Your task to perform on an android device: open app "Google Pay: Save, Pay, Manage" (install if not already installed) Image 0: 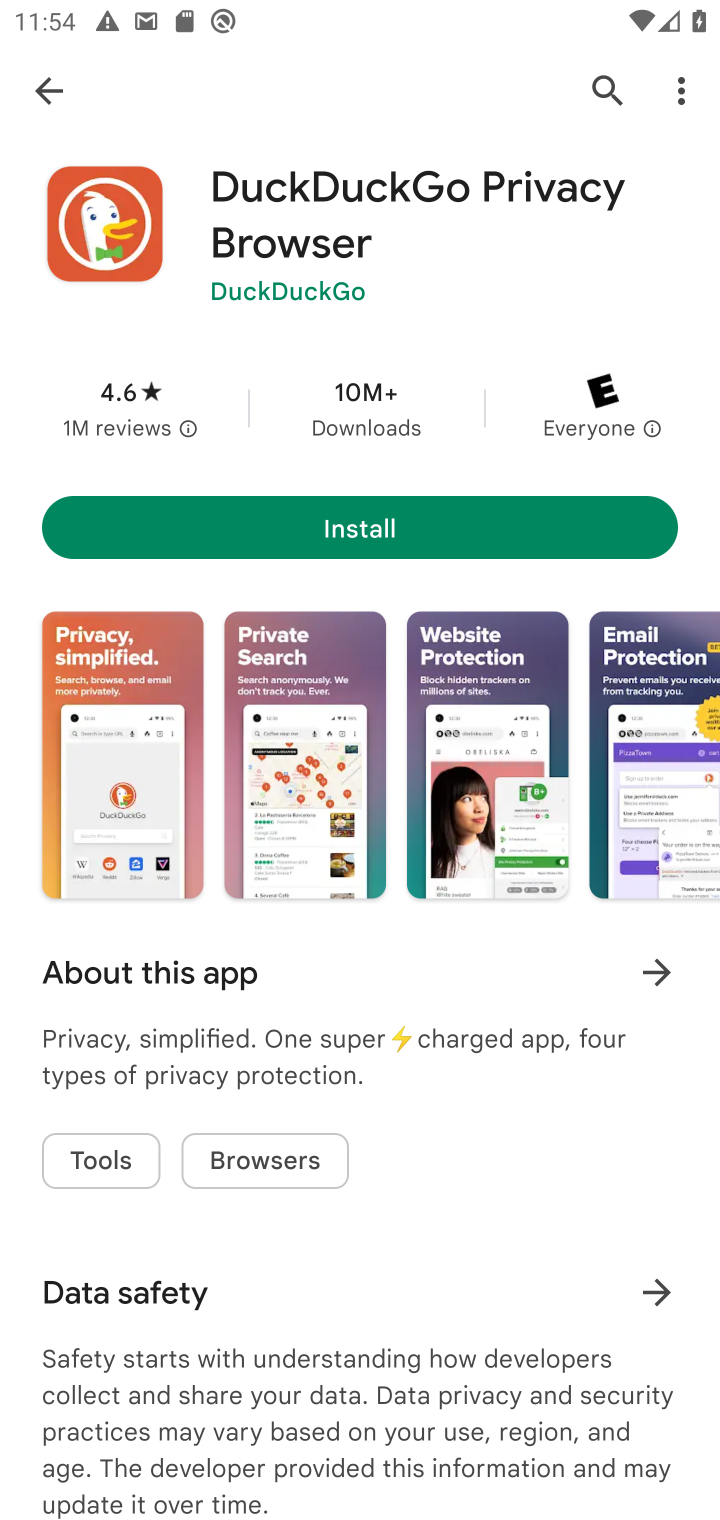
Step 0: press home button
Your task to perform on an android device: open app "Google Pay: Save, Pay, Manage" (install if not already installed) Image 1: 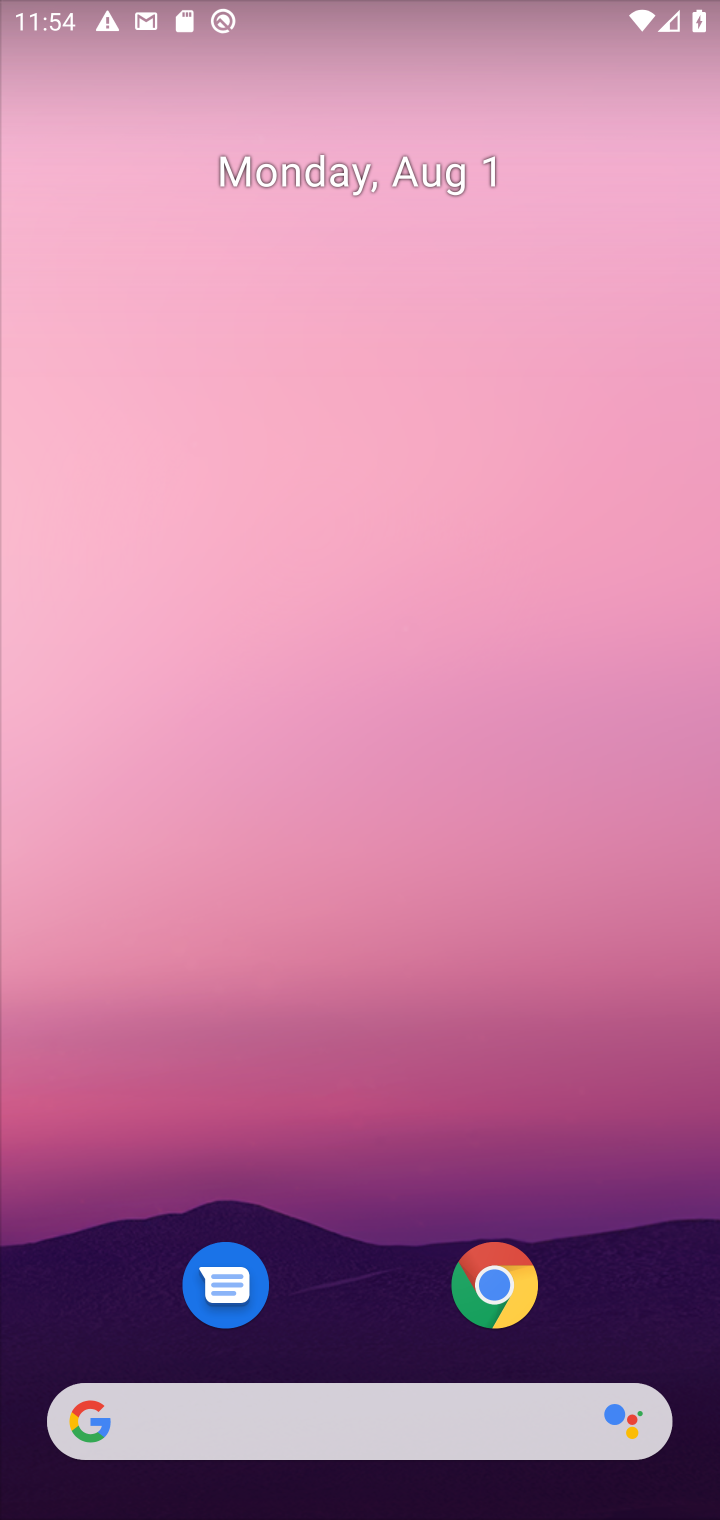
Step 1: click (394, 1205)
Your task to perform on an android device: open app "Google Pay: Save, Pay, Manage" (install if not already installed) Image 2: 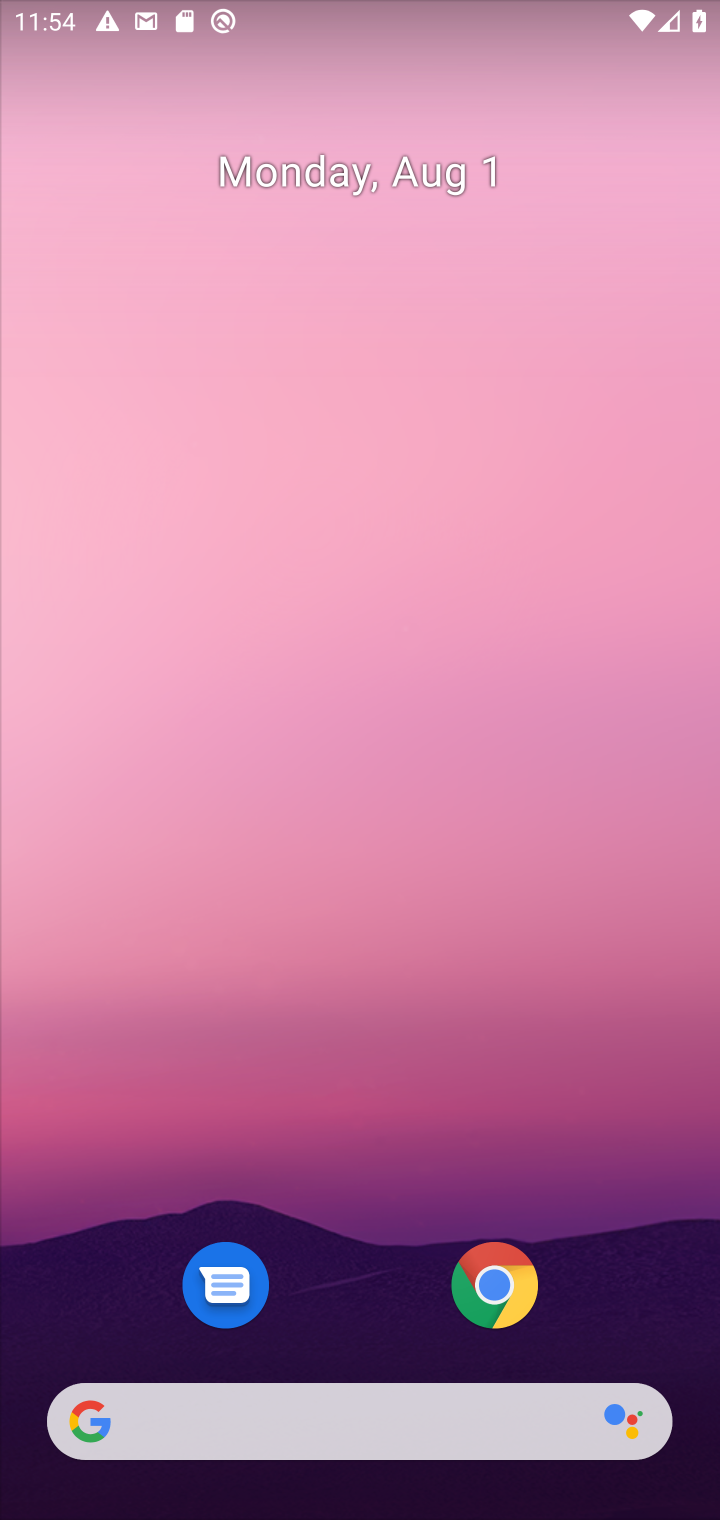
Step 2: drag from (394, 860) to (468, 171)
Your task to perform on an android device: open app "Google Pay: Save, Pay, Manage" (install if not already installed) Image 3: 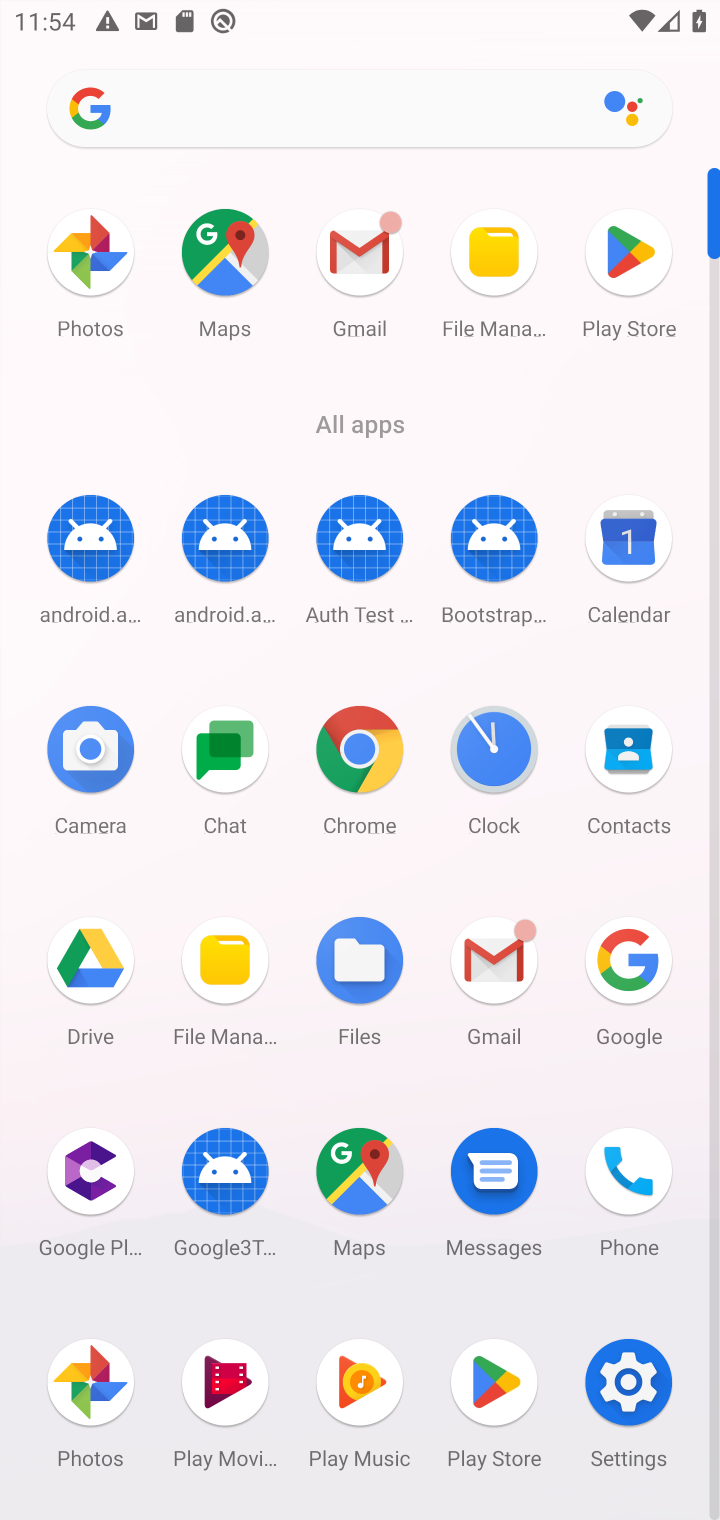
Step 3: click (632, 294)
Your task to perform on an android device: open app "Google Pay: Save, Pay, Manage" (install if not already installed) Image 4: 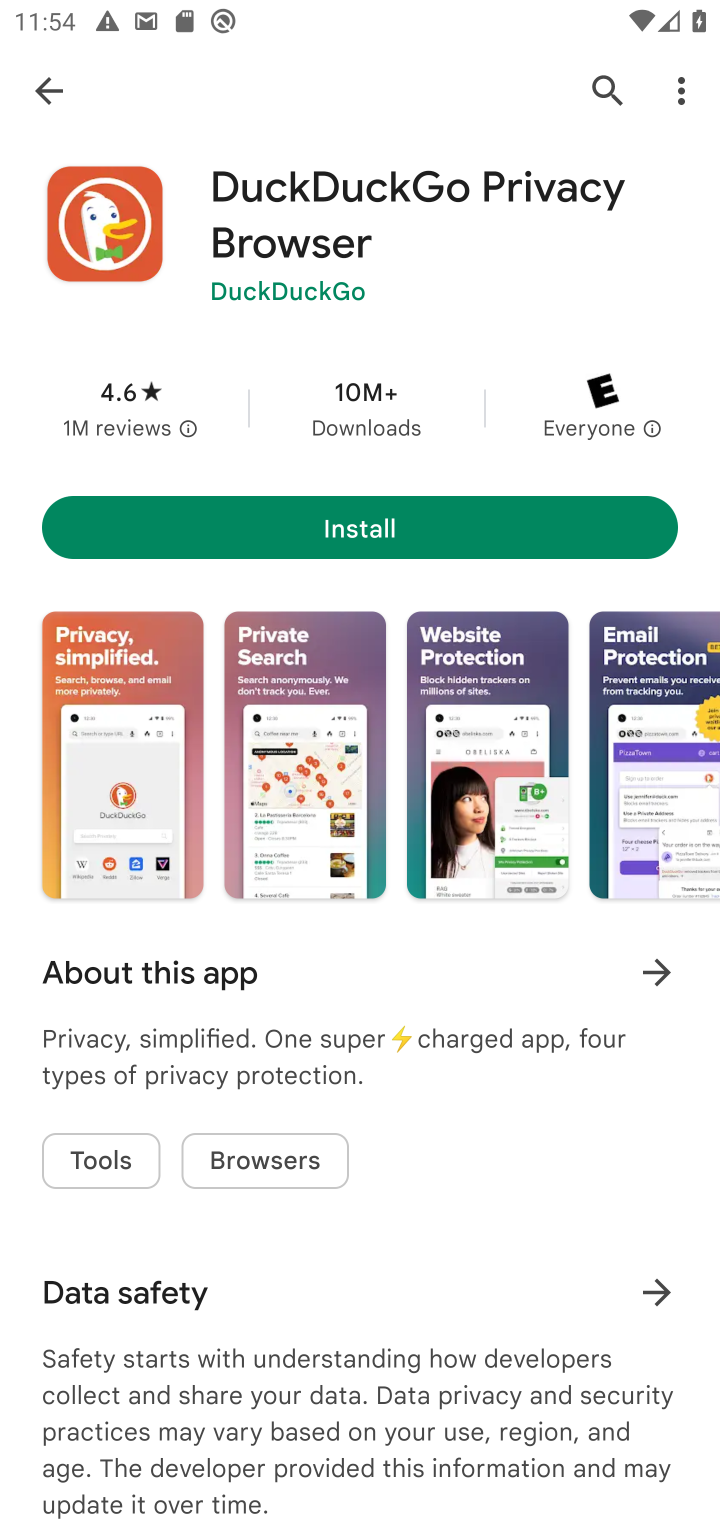
Step 4: click (623, 99)
Your task to perform on an android device: open app "Google Pay: Save, Pay, Manage" (install if not already installed) Image 5: 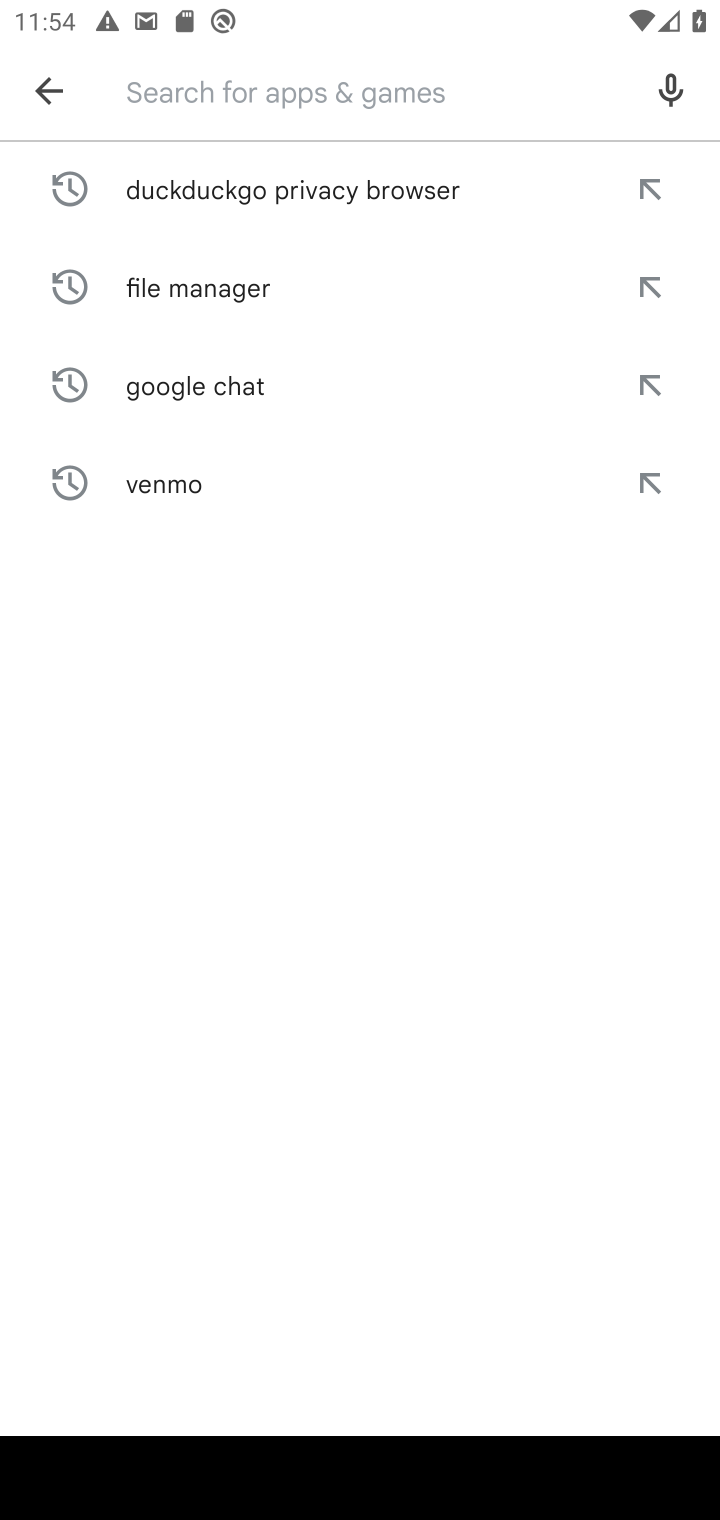
Step 5: click (312, 88)
Your task to perform on an android device: open app "Google Pay: Save, Pay, Manage" (install if not already installed) Image 6: 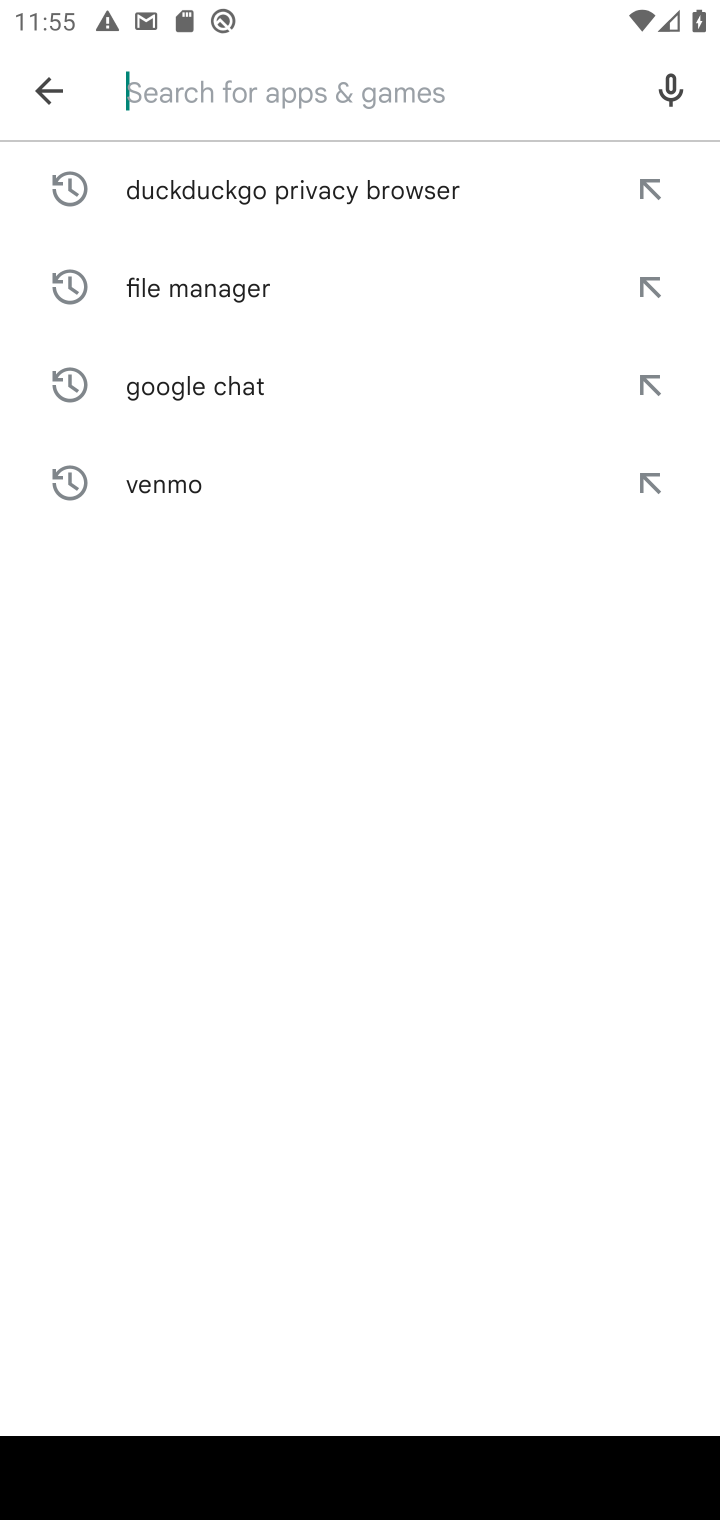
Step 6: type "Google Pay, Manage¨"
Your task to perform on an android device: open app "Google Pay: Save, Pay, Manage" (install if not already installed) Image 7: 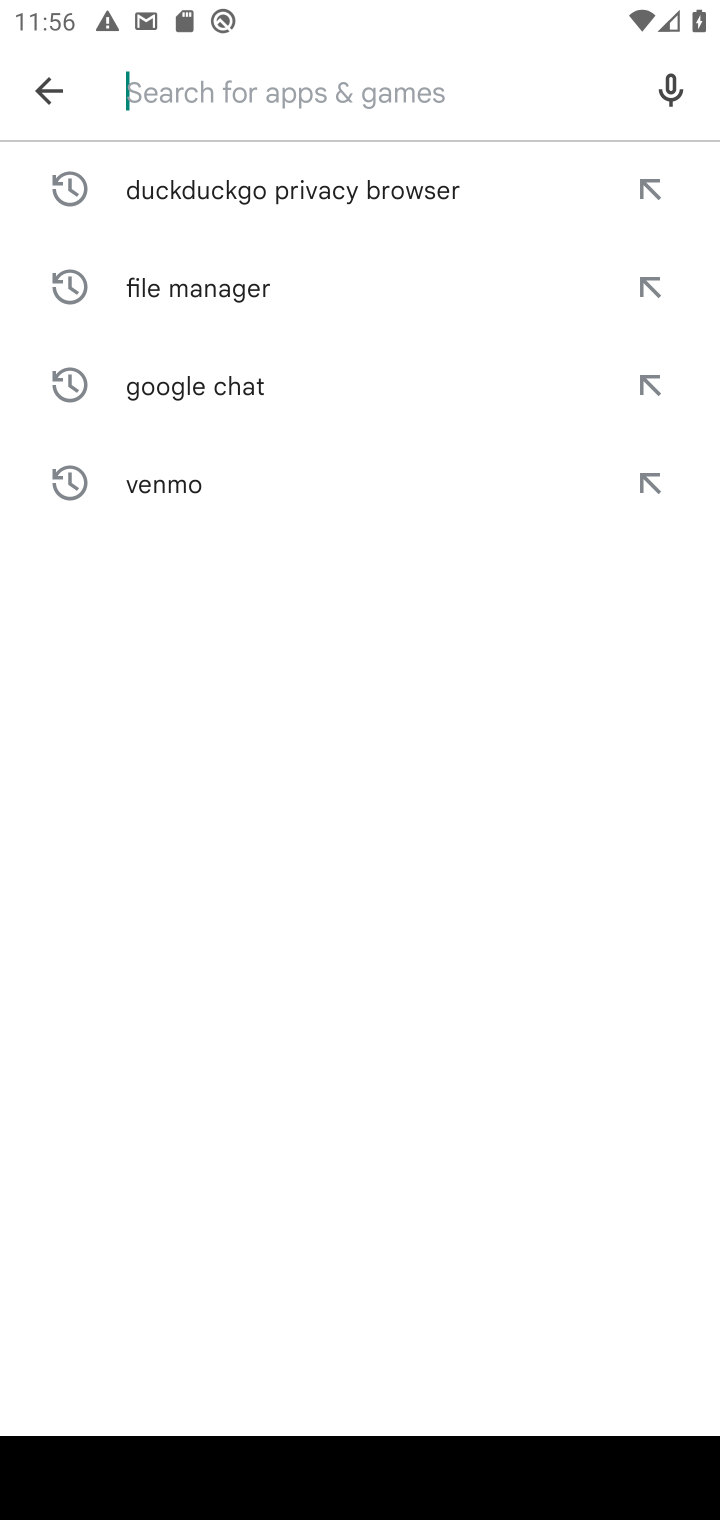
Step 7: type "Google pay, Manage"
Your task to perform on an android device: open app "Google Pay: Save, Pay, Manage" (install if not already installed) Image 8: 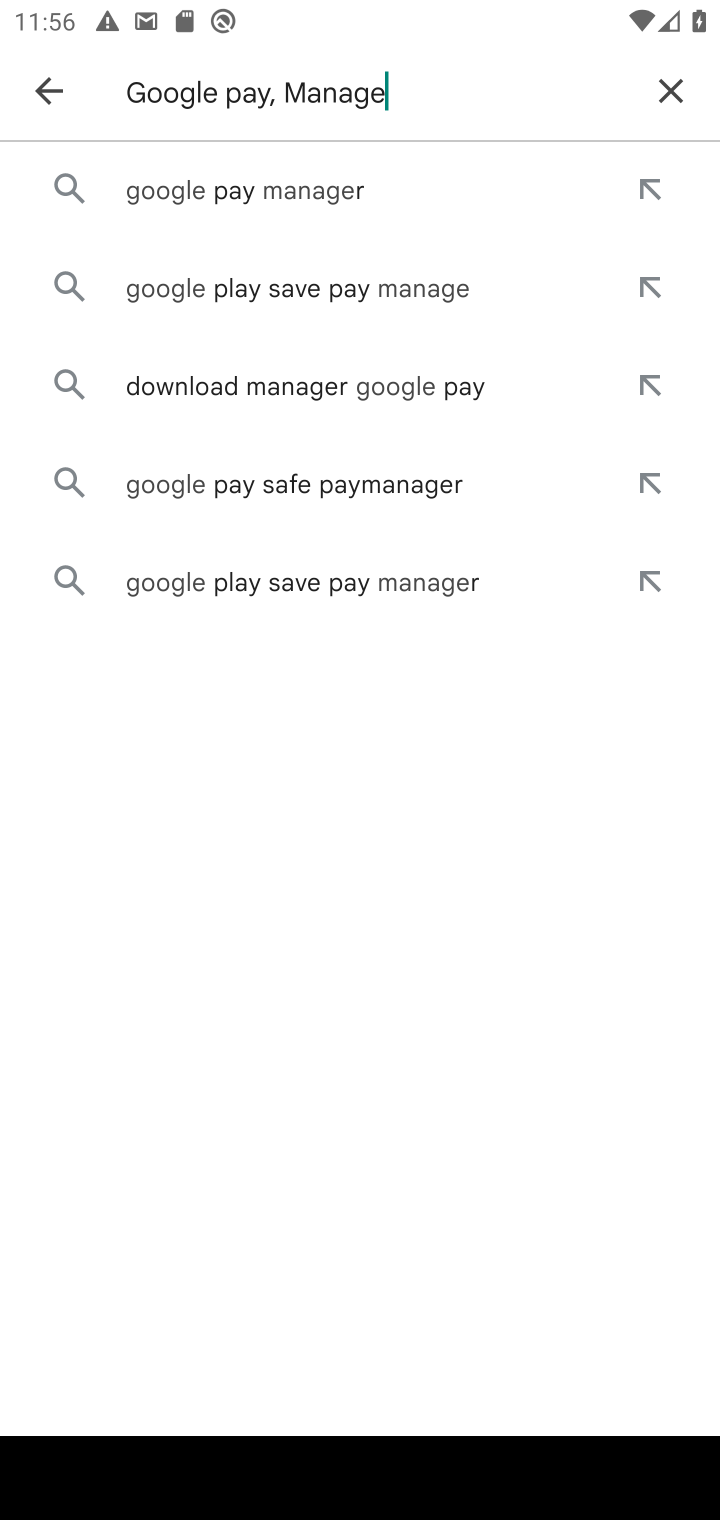
Step 8: click (398, 210)
Your task to perform on an android device: open app "Google Pay: Save, Pay, Manage" (install if not already installed) Image 9: 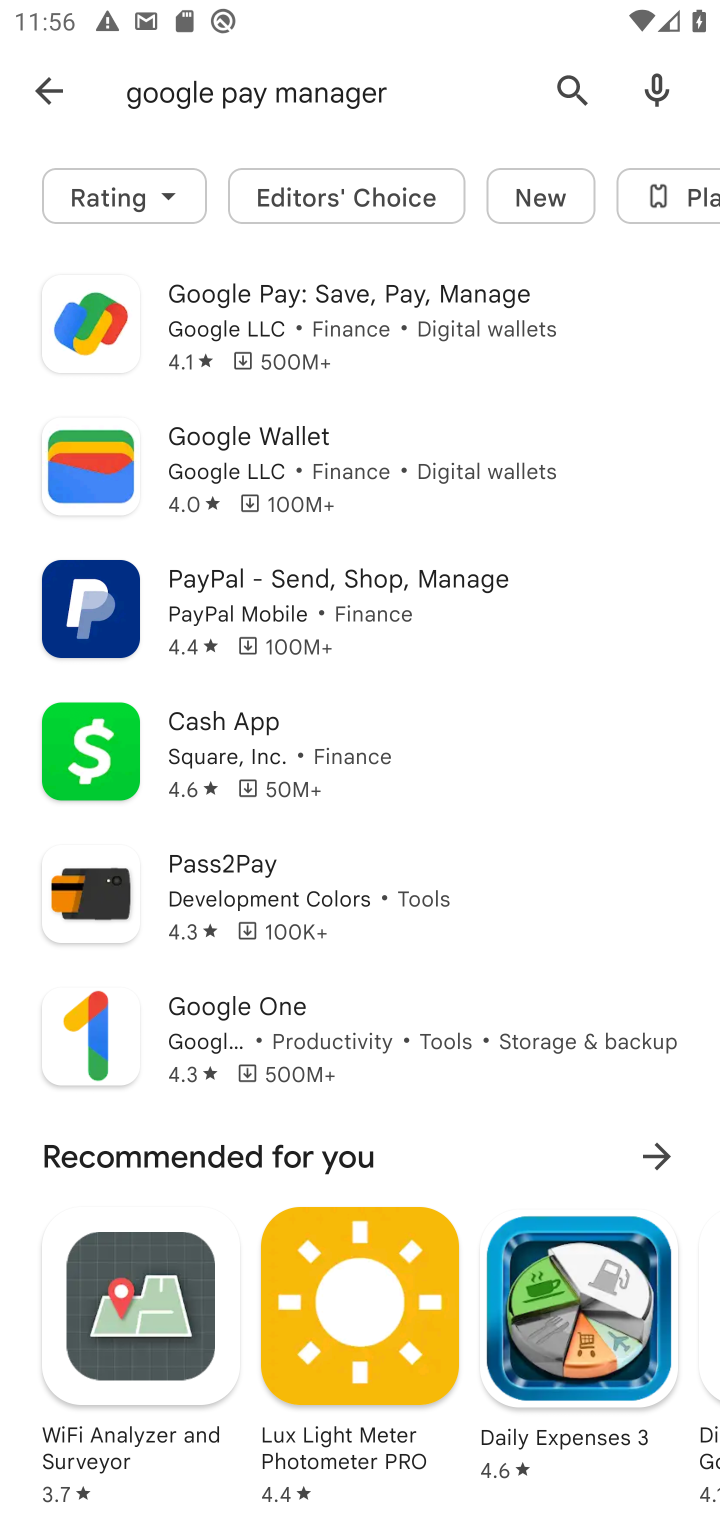
Step 9: click (175, 343)
Your task to perform on an android device: open app "Google Pay: Save, Pay, Manage" (install if not already installed) Image 10: 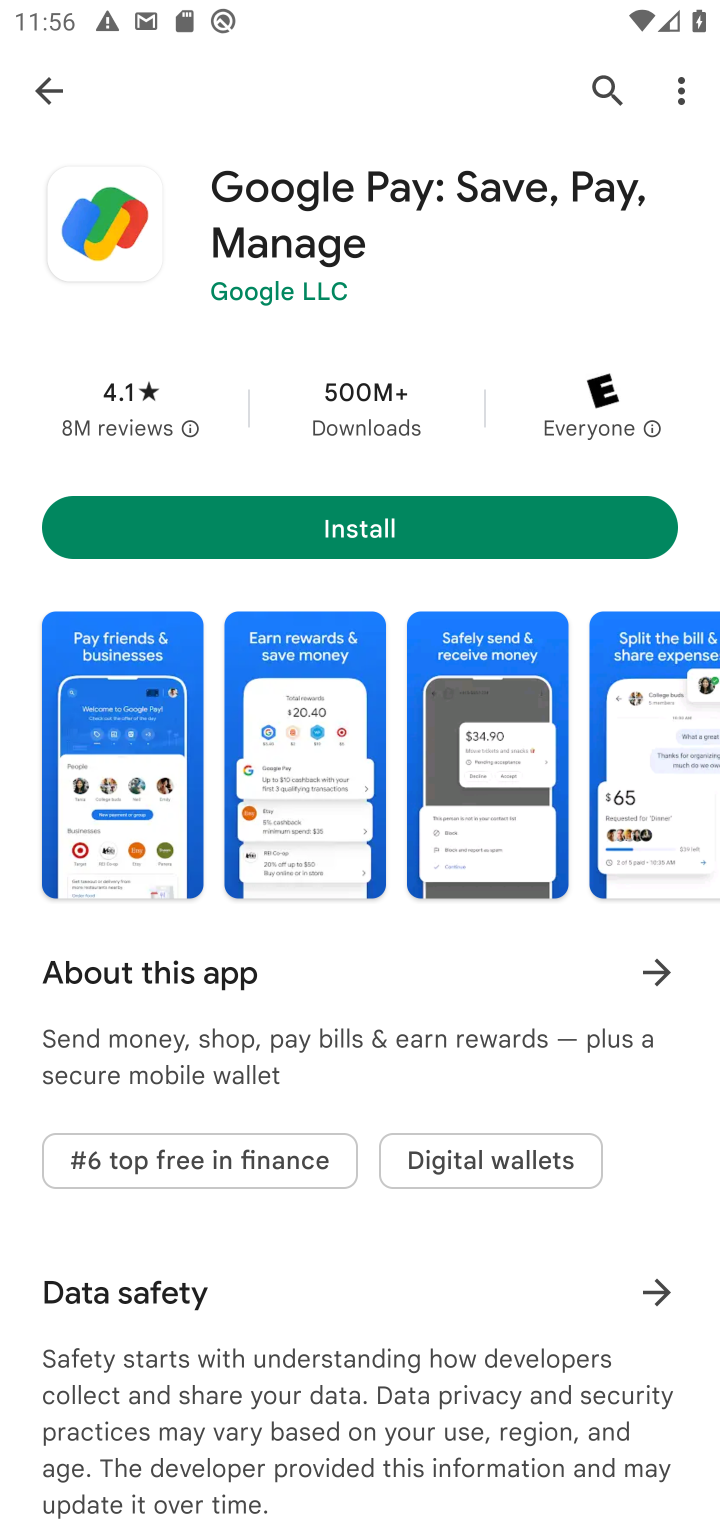
Step 10: click (315, 504)
Your task to perform on an android device: open app "Google Pay: Save, Pay, Manage" (install if not already installed) Image 11: 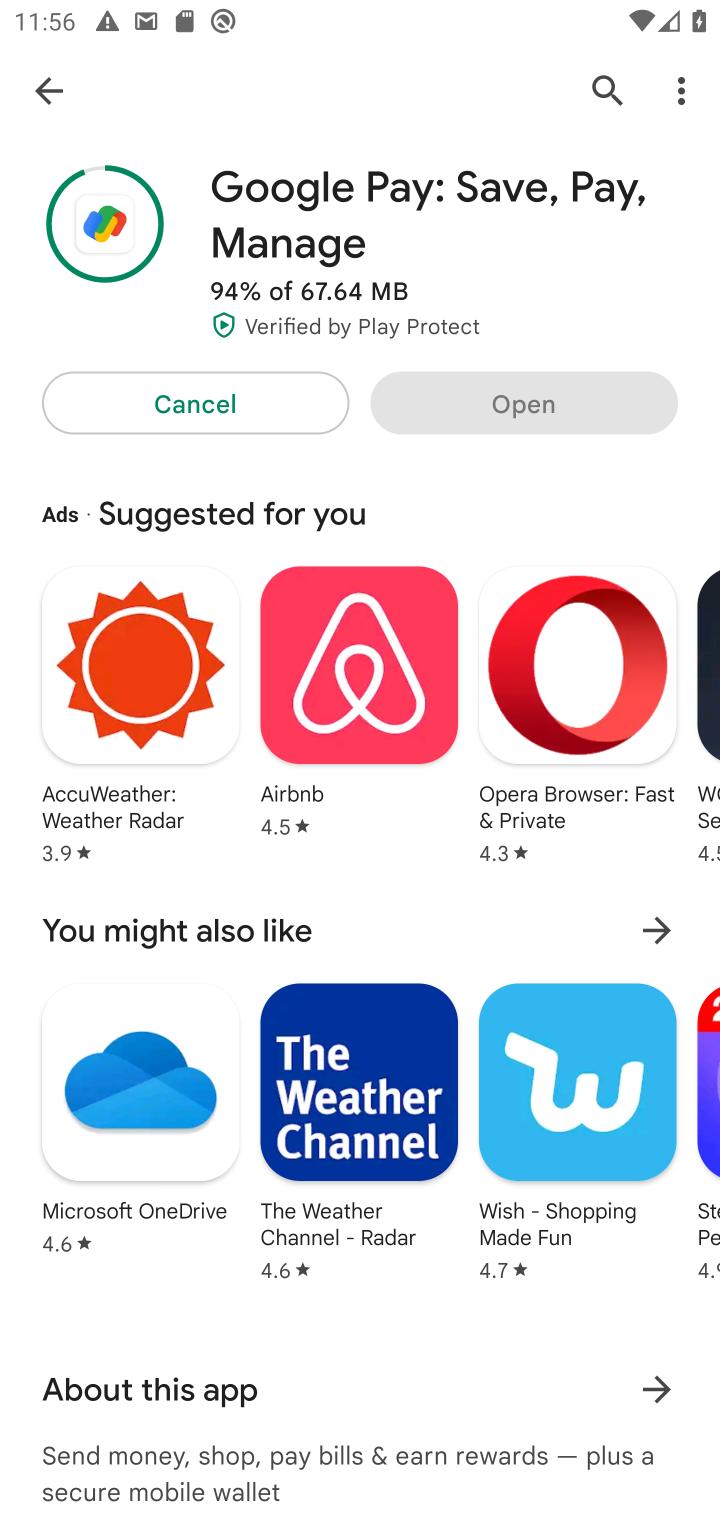
Step 11: click (69, 106)
Your task to perform on an android device: open app "Google Pay: Save, Pay, Manage" (install if not already installed) Image 12: 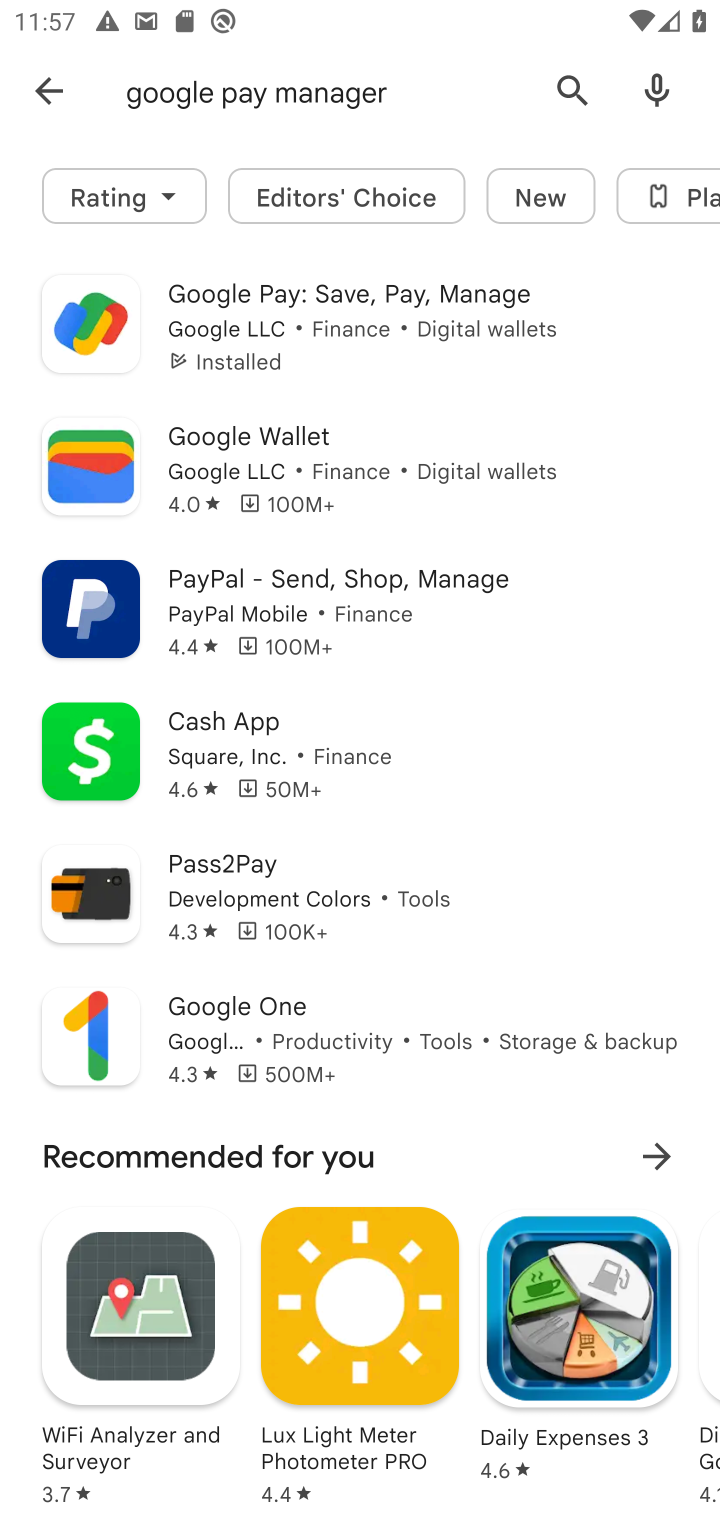
Step 12: click (242, 303)
Your task to perform on an android device: open app "Google Pay: Save, Pay, Manage" (install if not already installed) Image 13: 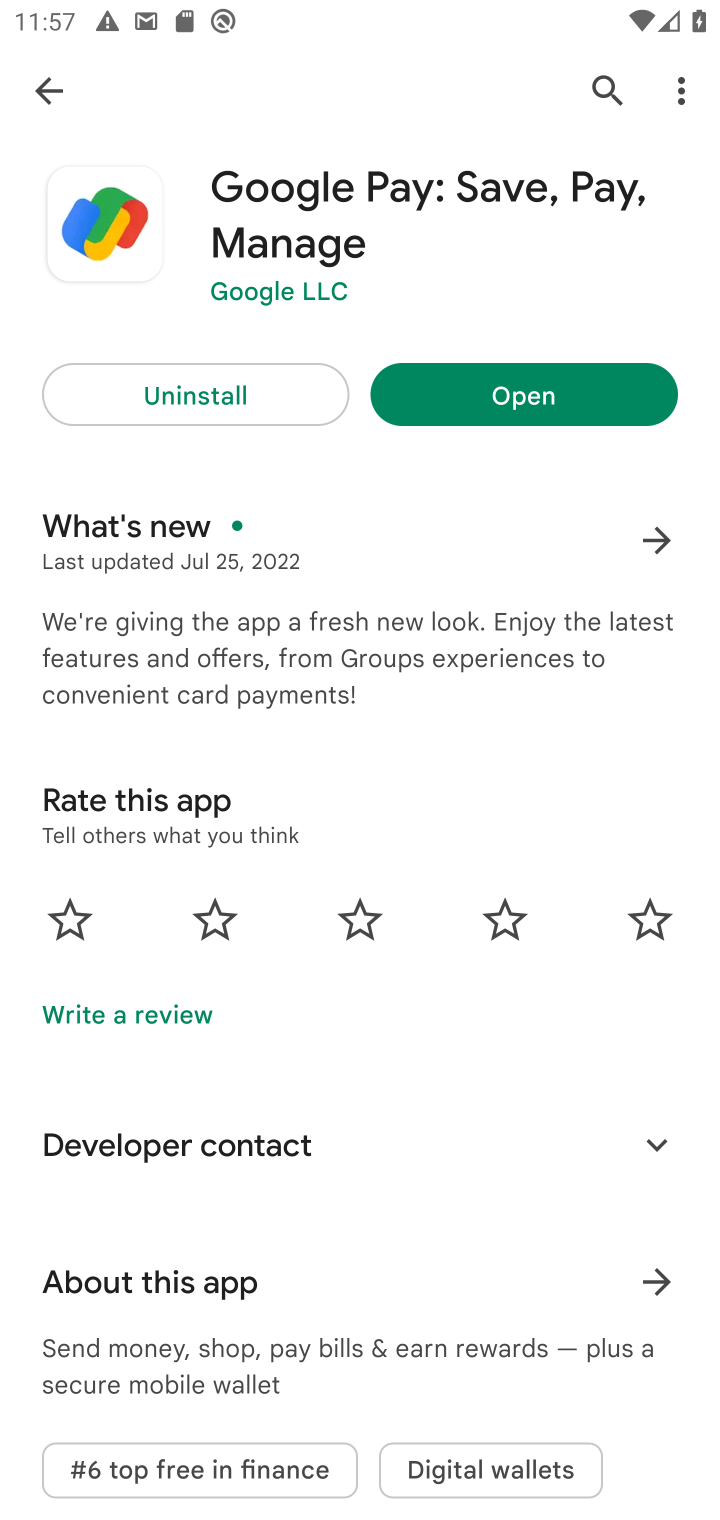
Step 13: click (574, 387)
Your task to perform on an android device: open app "Google Pay: Save, Pay, Manage" (install if not already installed) Image 14: 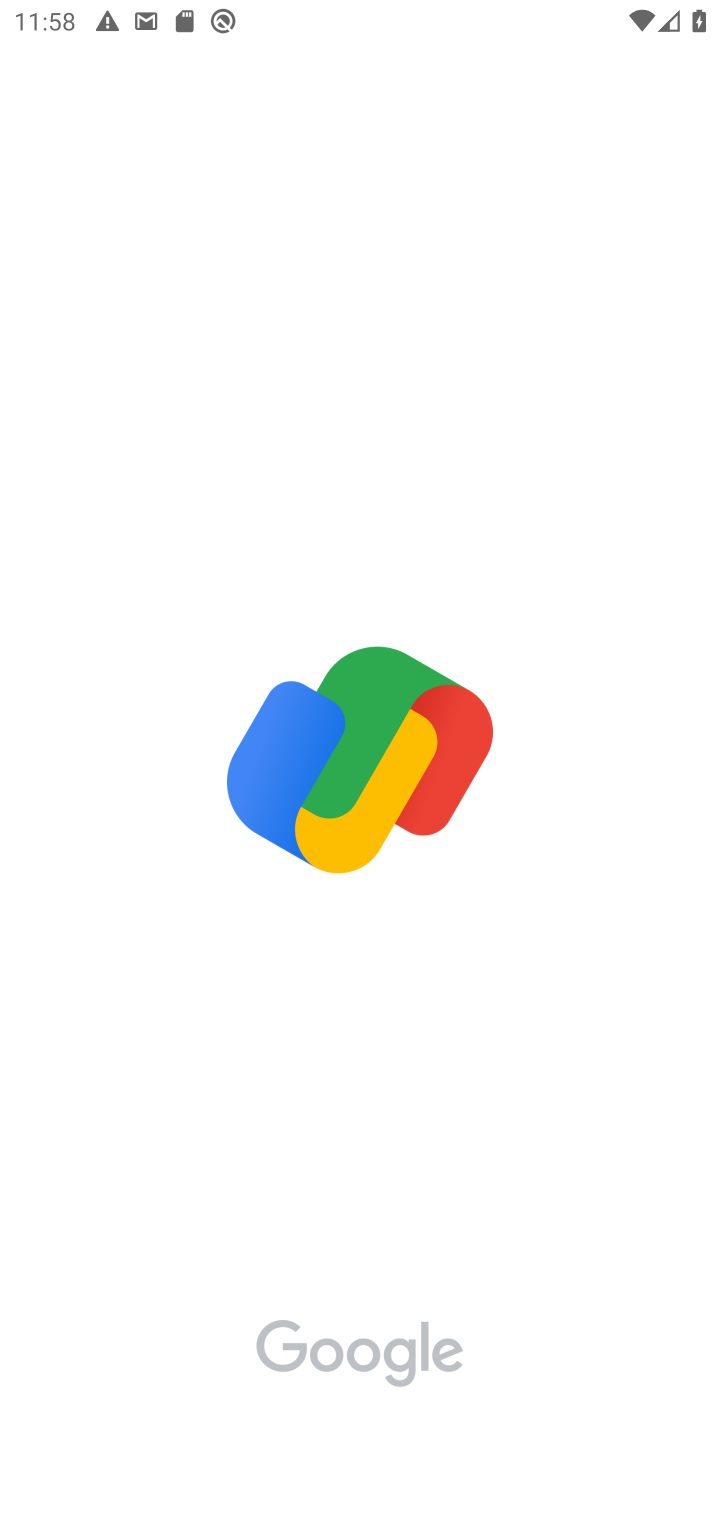
Step 14: drag from (69, 757) to (678, 1018)
Your task to perform on an android device: open app "Google Pay: Save, Pay, Manage" (install if not already installed) Image 15: 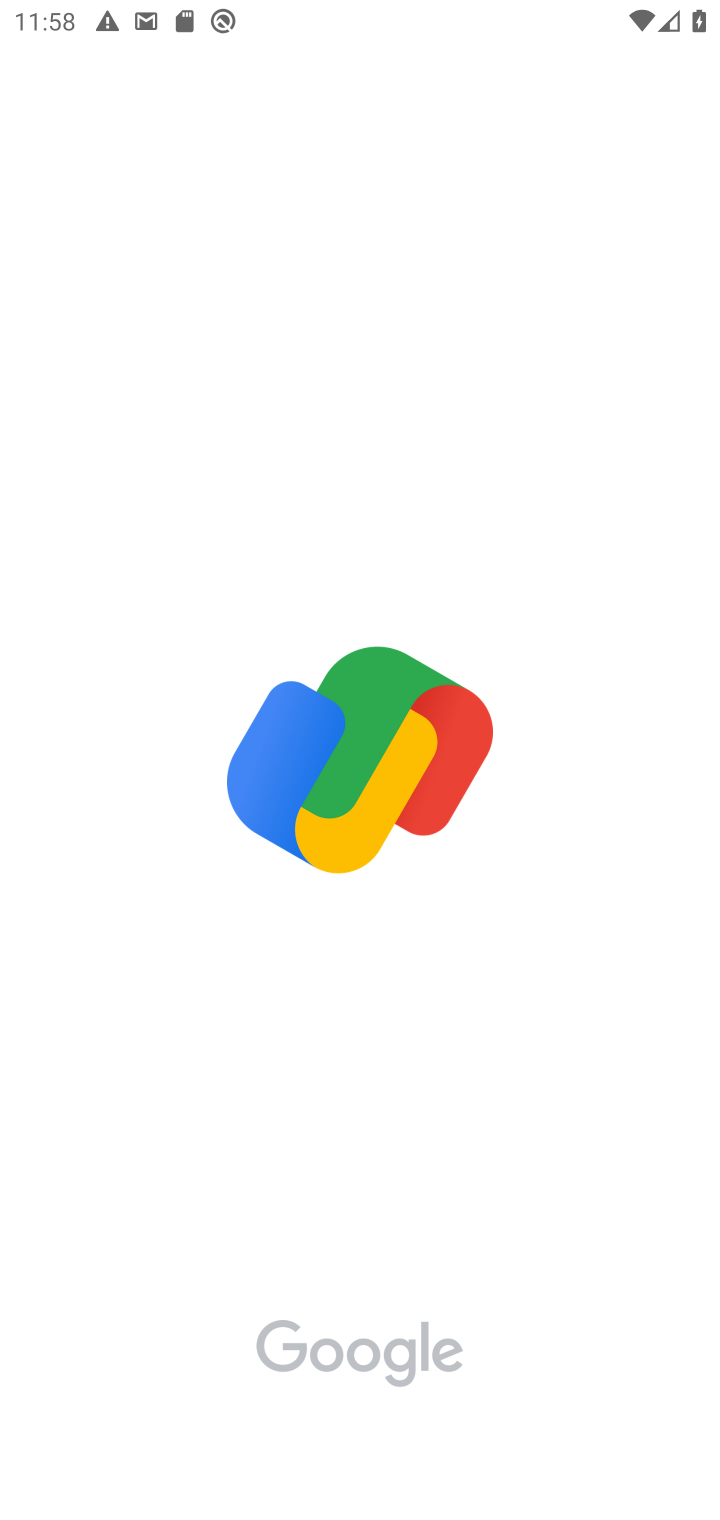
Step 15: click (338, 779)
Your task to perform on an android device: open app "Google Pay: Save, Pay, Manage" (install if not already installed) Image 16: 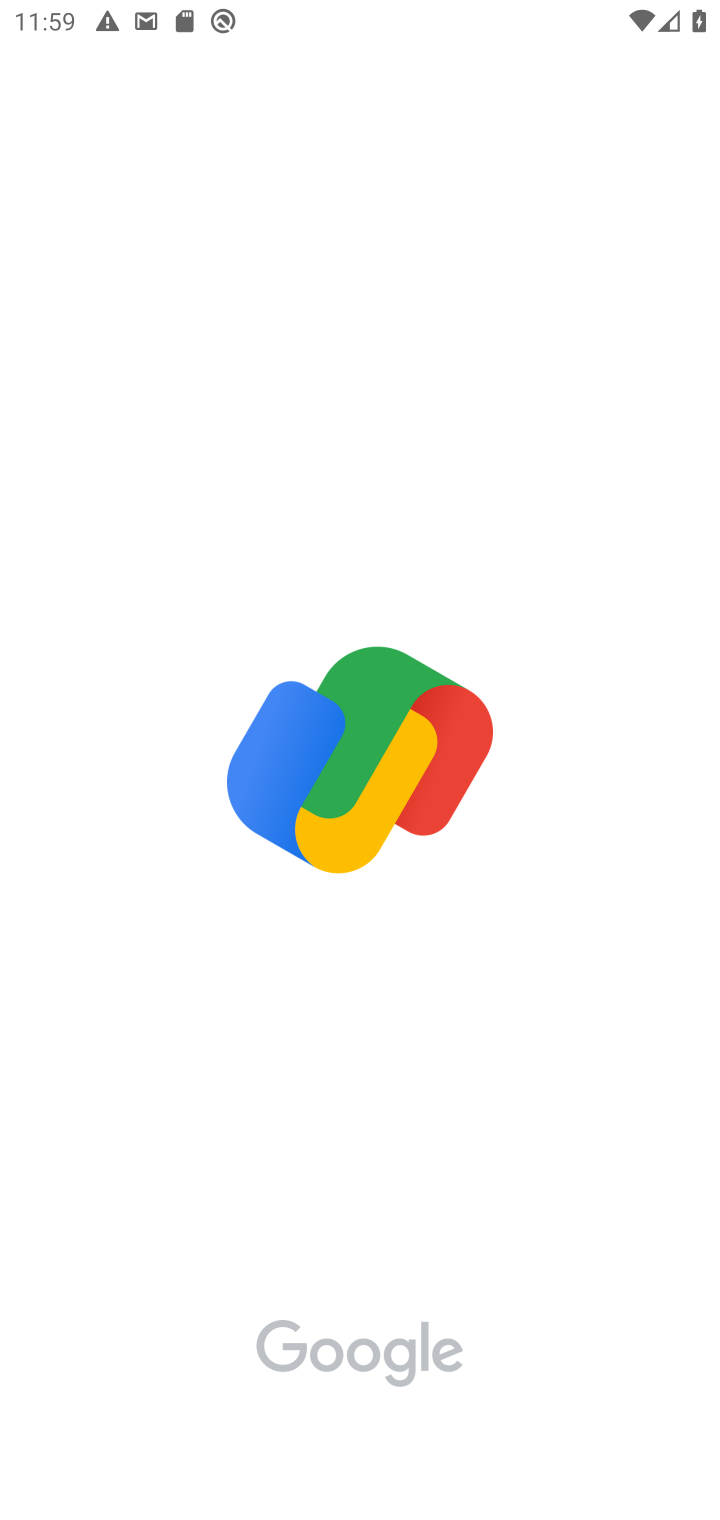
Step 16: task complete